Your task to perform on an android device: check google app version Image 0: 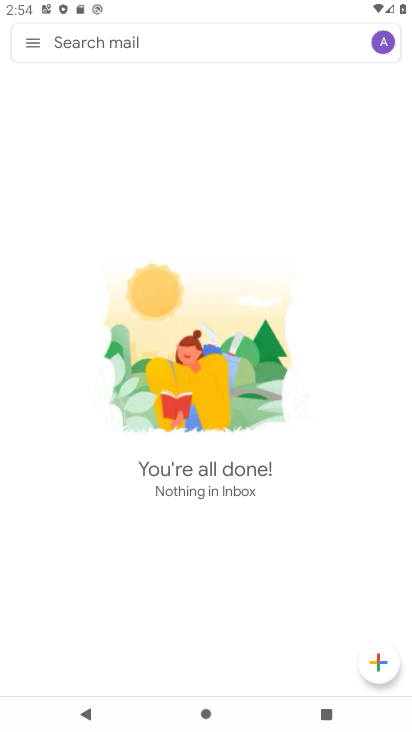
Step 0: press home button
Your task to perform on an android device: check google app version Image 1: 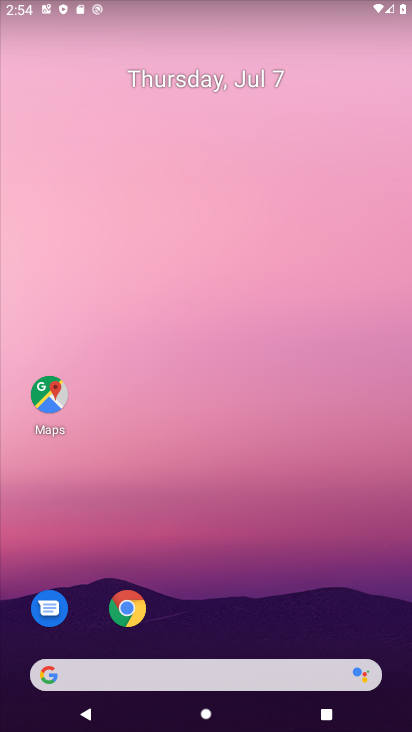
Step 1: drag from (330, 622) to (274, 99)
Your task to perform on an android device: check google app version Image 2: 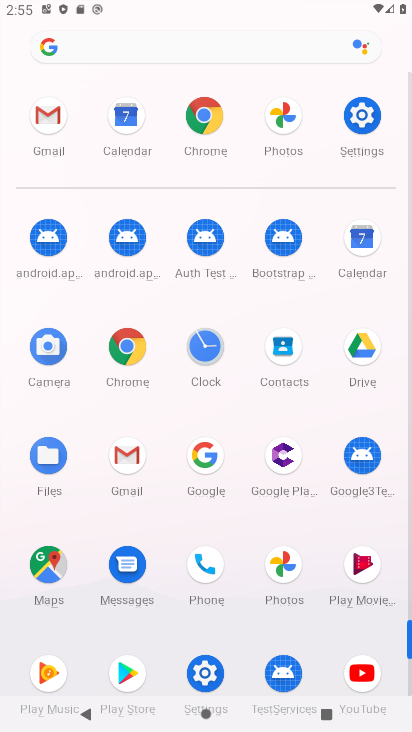
Step 2: click (127, 348)
Your task to perform on an android device: check google app version Image 3: 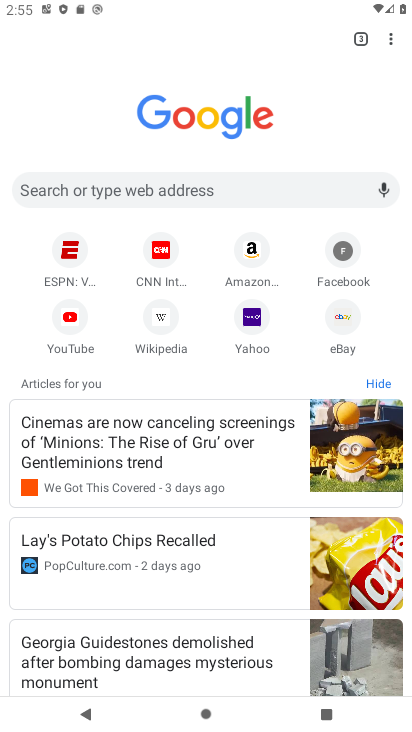
Step 3: click (391, 43)
Your task to perform on an android device: check google app version Image 4: 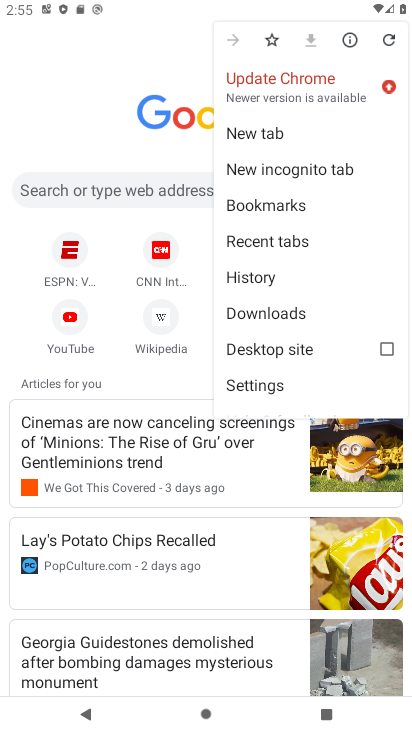
Step 4: click (263, 380)
Your task to perform on an android device: check google app version Image 5: 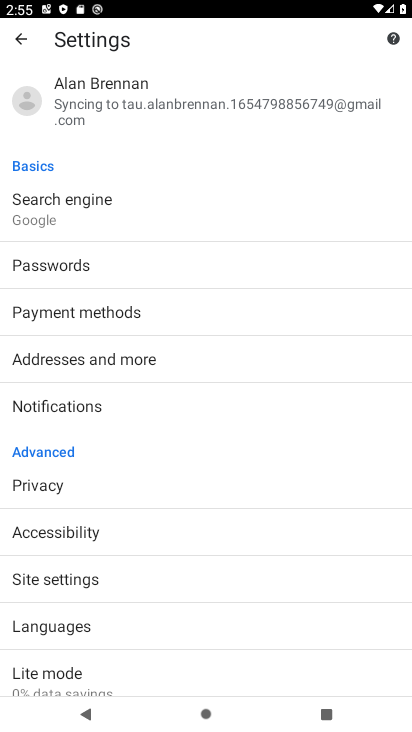
Step 5: drag from (225, 671) to (190, 297)
Your task to perform on an android device: check google app version Image 6: 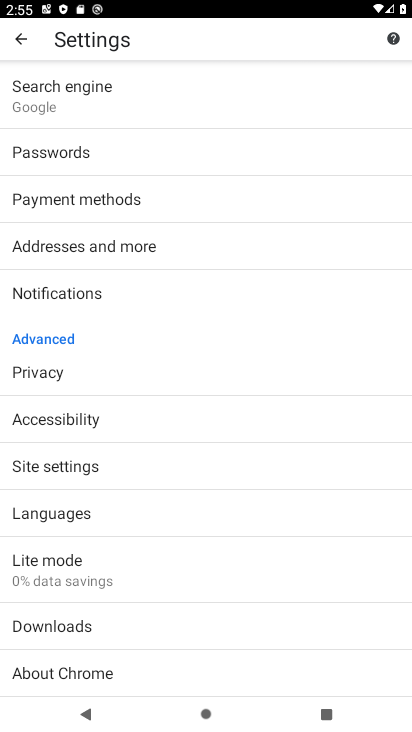
Step 6: click (84, 666)
Your task to perform on an android device: check google app version Image 7: 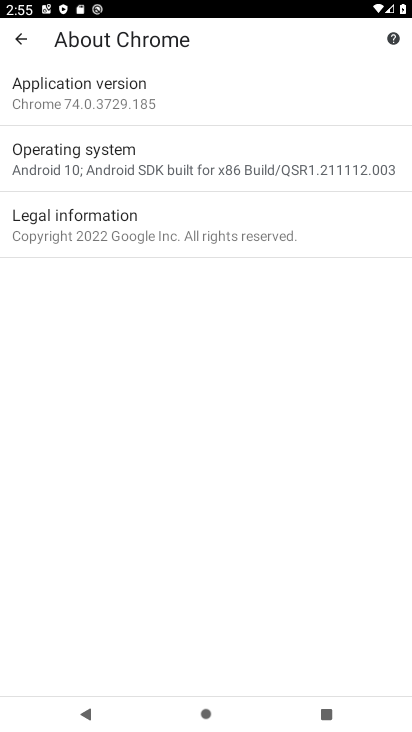
Step 7: click (97, 98)
Your task to perform on an android device: check google app version Image 8: 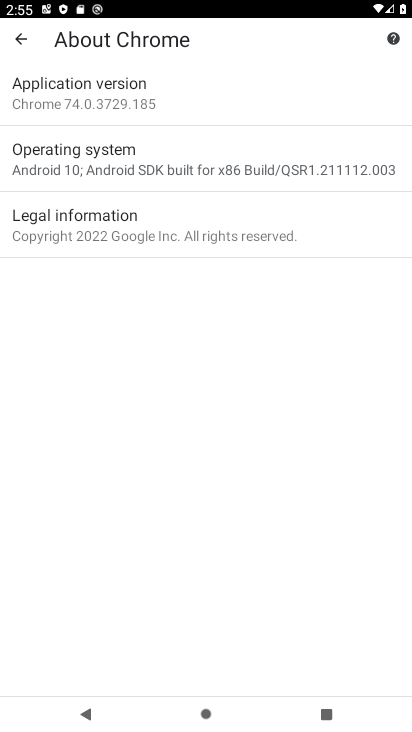
Step 8: task complete